Your task to perform on an android device: open chrome privacy settings Image 0: 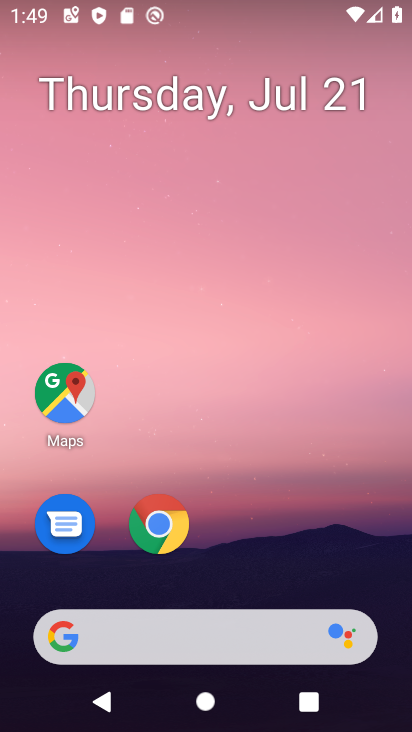
Step 0: drag from (255, 557) to (280, 151)
Your task to perform on an android device: open chrome privacy settings Image 1: 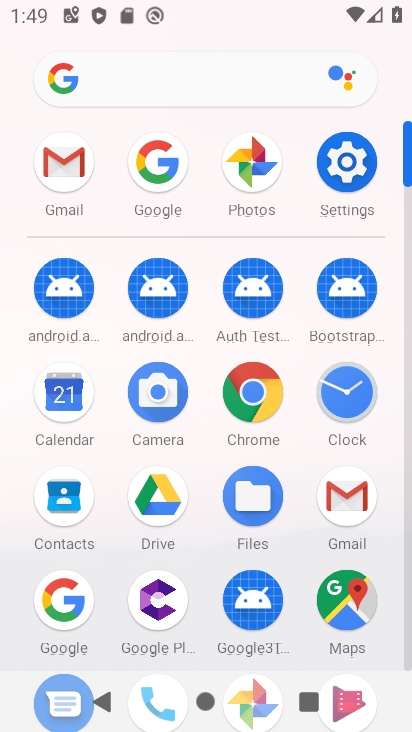
Step 1: click (249, 383)
Your task to perform on an android device: open chrome privacy settings Image 2: 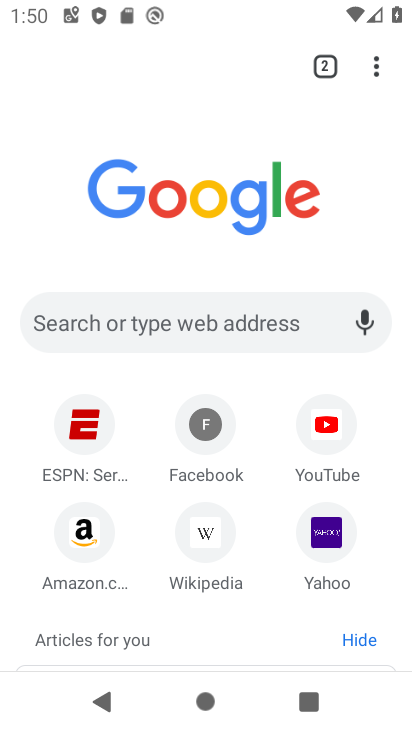
Step 2: click (378, 66)
Your task to perform on an android device: open chrome privacy settings Image 3: 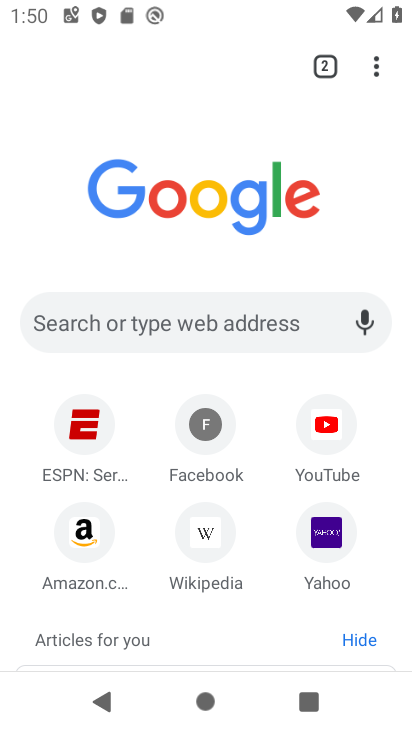
Step 3: click (378, 66)
Your task to perform on an android device: open chrome privacy settings Image 4: 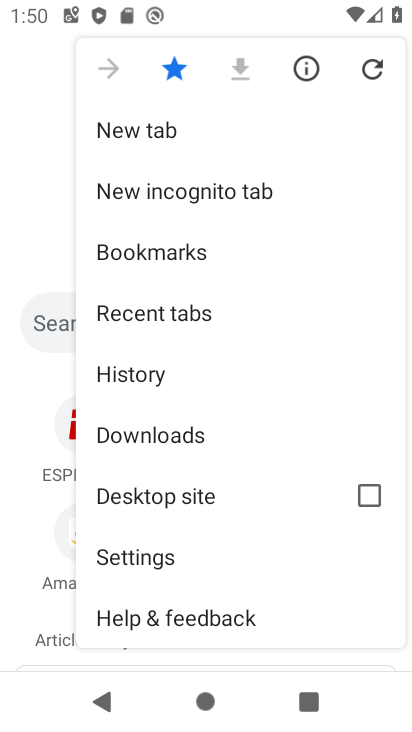
Step 4: click (159, 544)
Your task to perform on an android device: open chrome privacy settings Image 5: 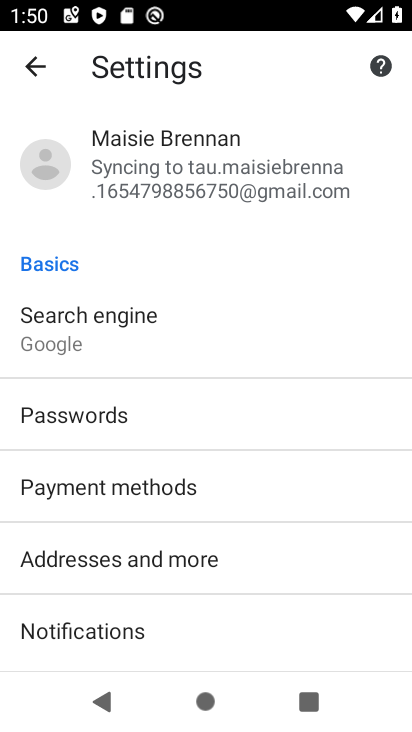
Step 5: drag from (269, 605) to (303, 362)
Your task to perform on an android device: open chrome privacy settings Image 6: 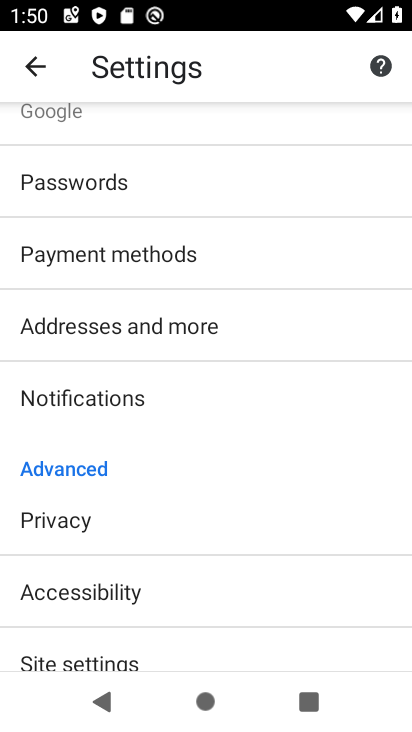
Step 6: click (69, 522)
Your task to perform on an android device: open chrome privacy settings Image 7: 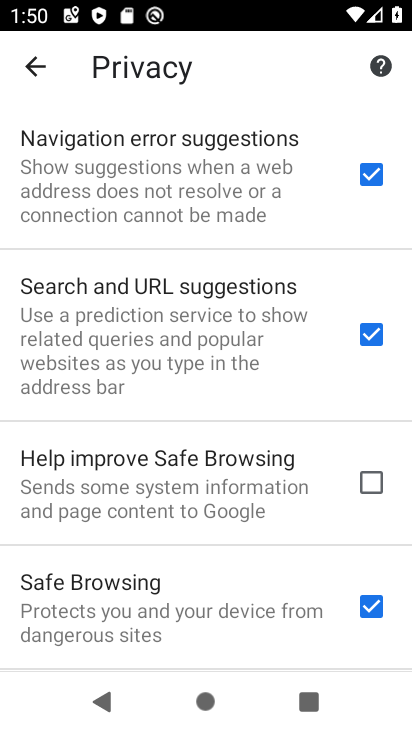
Step 7: task complete